Your task to perform on an android device: manage bookmarks in the chrome app Image 0: 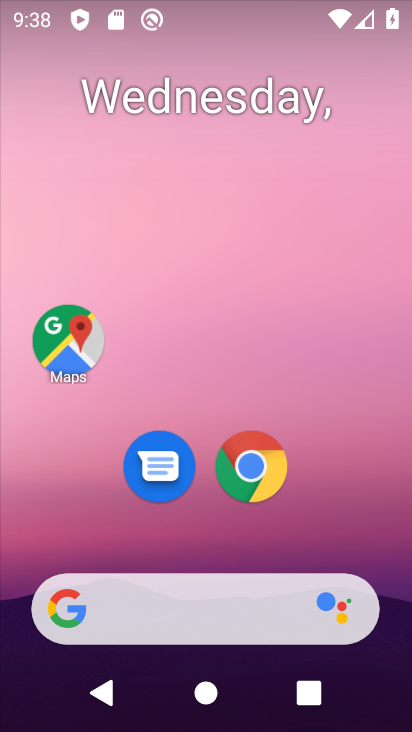
Step 0: drag from (336, 400) to (309, 40)
Your task to perform on an android device: manage bookmarks in the chrome app Image 1: 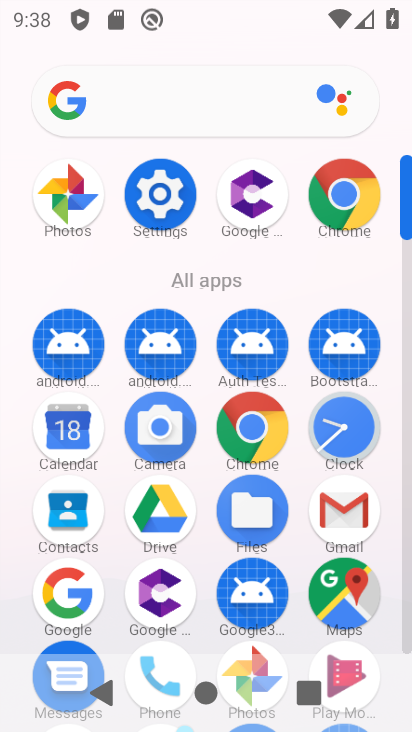
Step 1: click (352, 209)
Your task to perform on an android device: manage bookmarks in the chrome app Image 2: 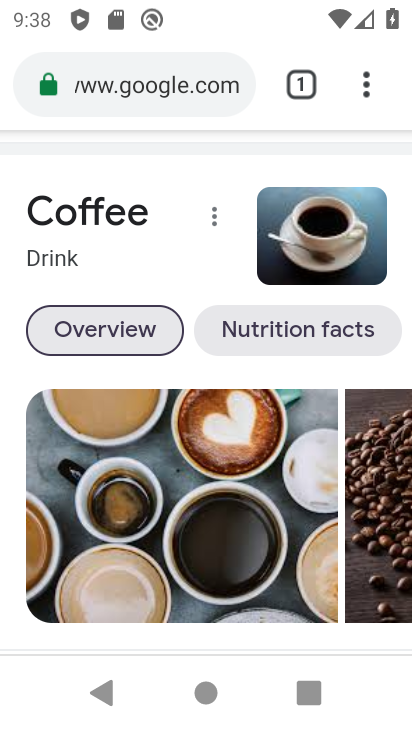
Step 2: drag from (373, 95) to (130, 330)
Your task to perform on an android device: manage bookmarks in the chrome app Image 3: 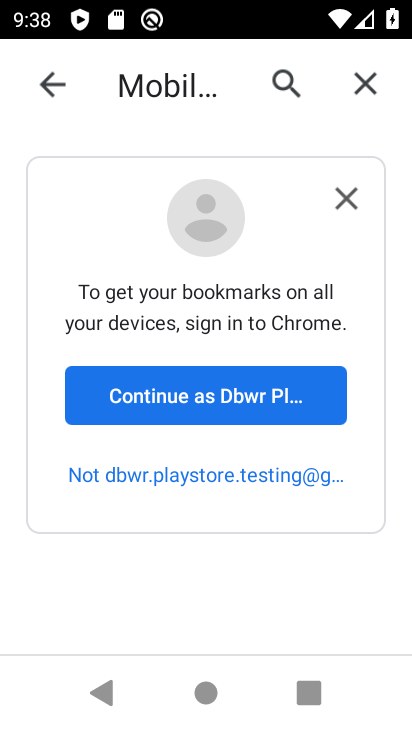
Step 3: drag from (233, 591) to (269, 226)
Your task to perform on an android device: manage bookmarks in the chrome app Image 4: 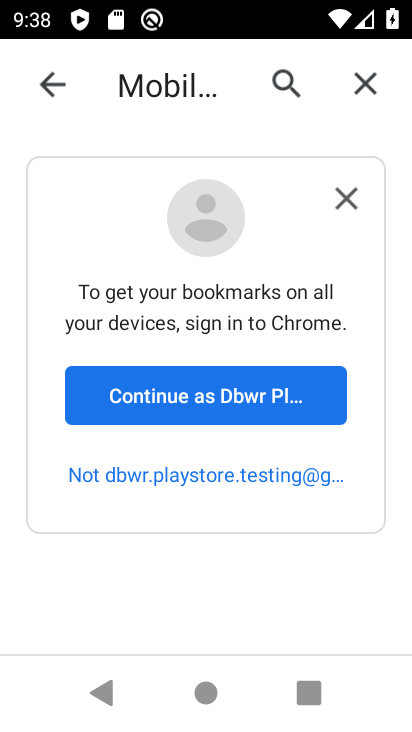
Step 4: click (276, 410)
Your task to perform on an android device: manage bookmarks in the chrome app Image 5: 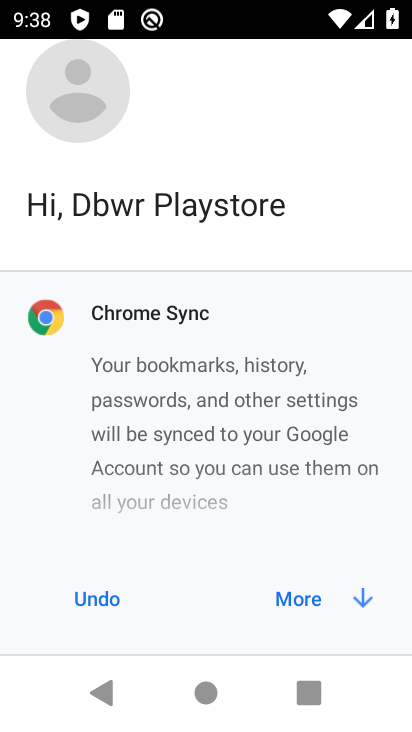
Step 5: click (298, 587)
Your task to perform on an android device: manage bookmarks in the chrome app Image 6: 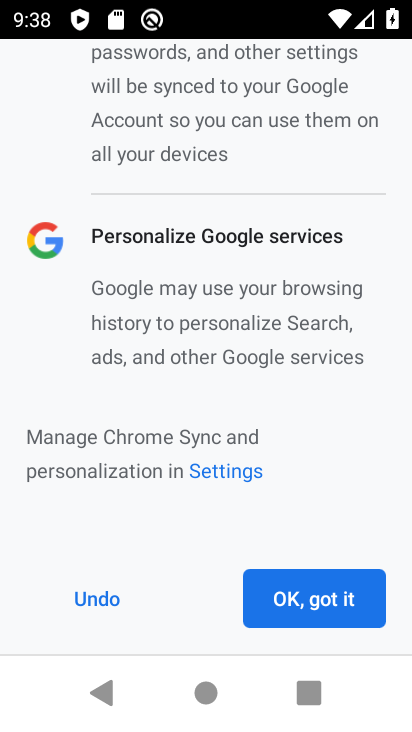
Step 6: click (298, 586)
Your task to perform on an android device: manage bookmarks in the chrome app Image 7: 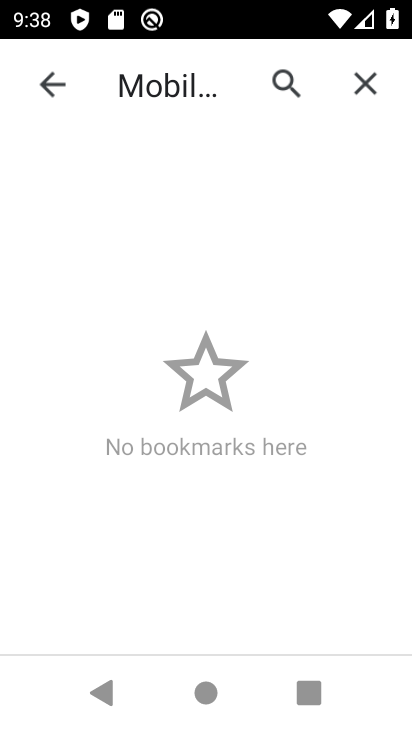
Step 7: task complete